Your task to perform on an android device: Toggle the flashlight Image 0: 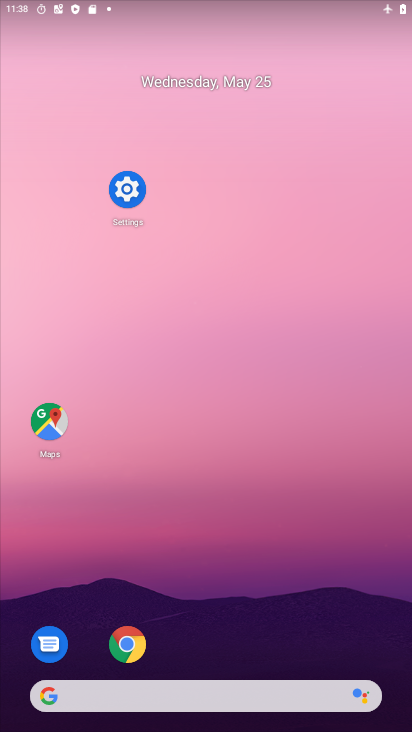
Step 0: drag from (245, 625) to (256, 92)
Your task to perform on an android device: Toggle the flashlight Image 1: 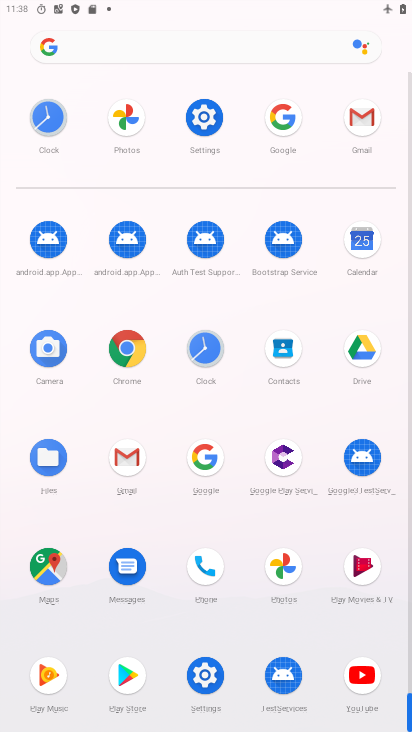
Step 1: click (202, 114)
Your task to perform on an android device: Toggle the flashlight Image 2: 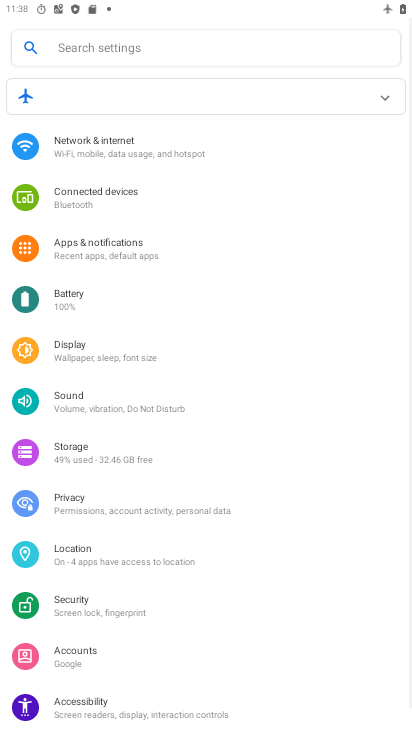
Step 2: click (203, 59)
Your task to perform on an android device: Toggle the flashlight Image 3: 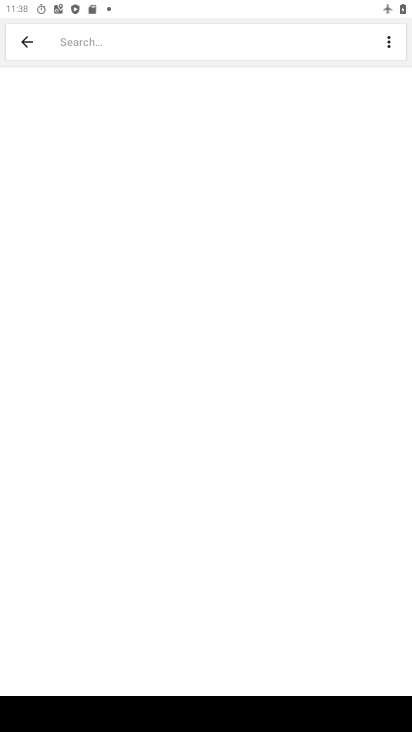
Step 3: type "flash"
Your task to perform on an android device: Toggle the flashlight Image 4: 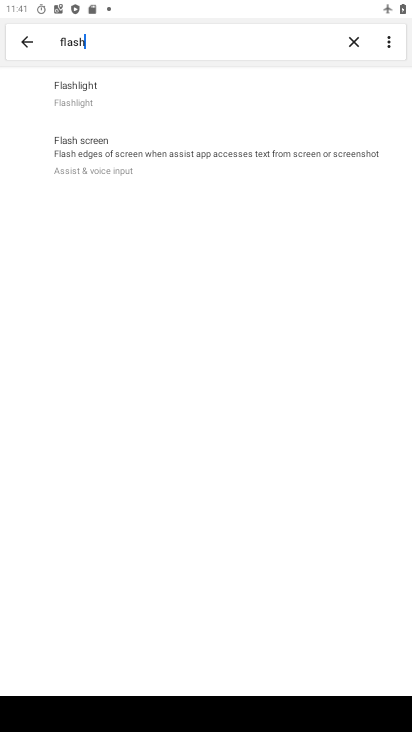
Step 4: task complete